Your task to perform on an android device: Add asus zenbook to the cart on costco.com, then select checkout. Image 0: 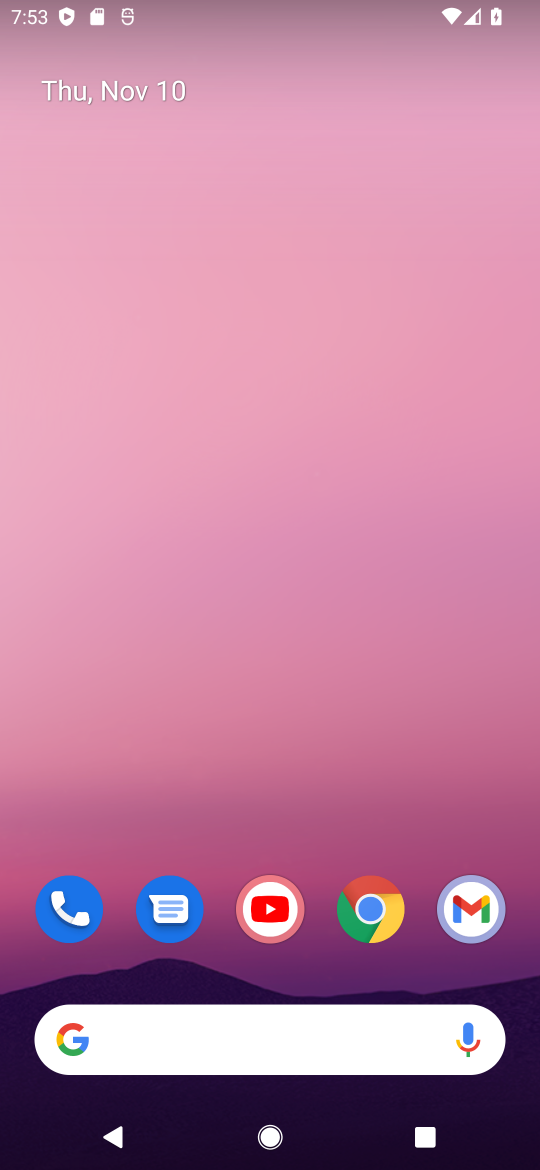
Step 0: drag from (167, 561) to (185, 278)
Your task to perform on an android device: Add asus zenbook to the cart on costco.com, then select checkout. Image 1: 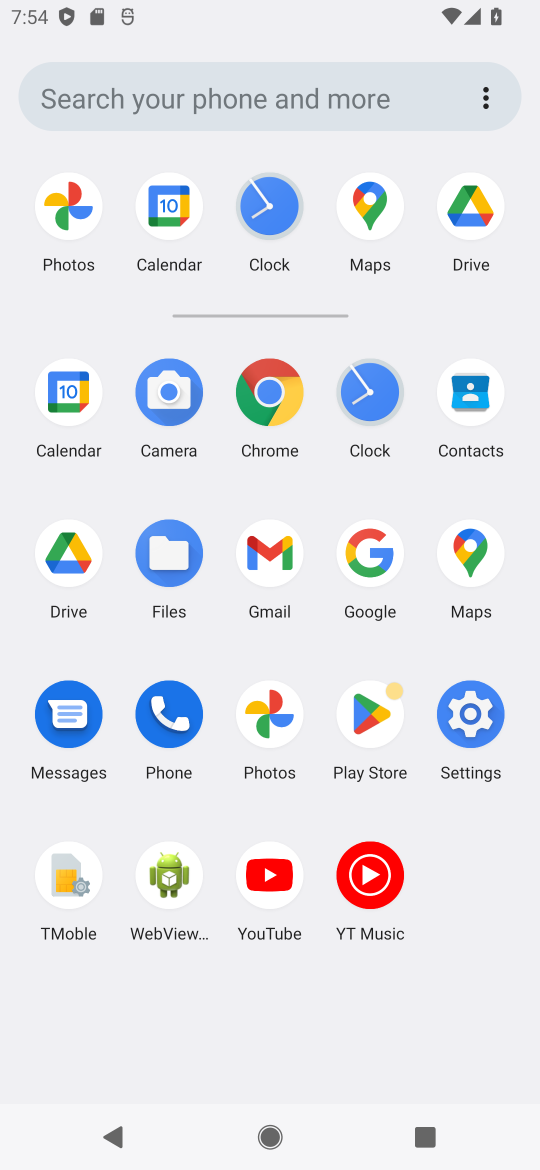
Step 1: click (371, 543)
Your task to perform on an android device: Add asus zenbook to the cart on costco.com, then select checkout. Image 2: 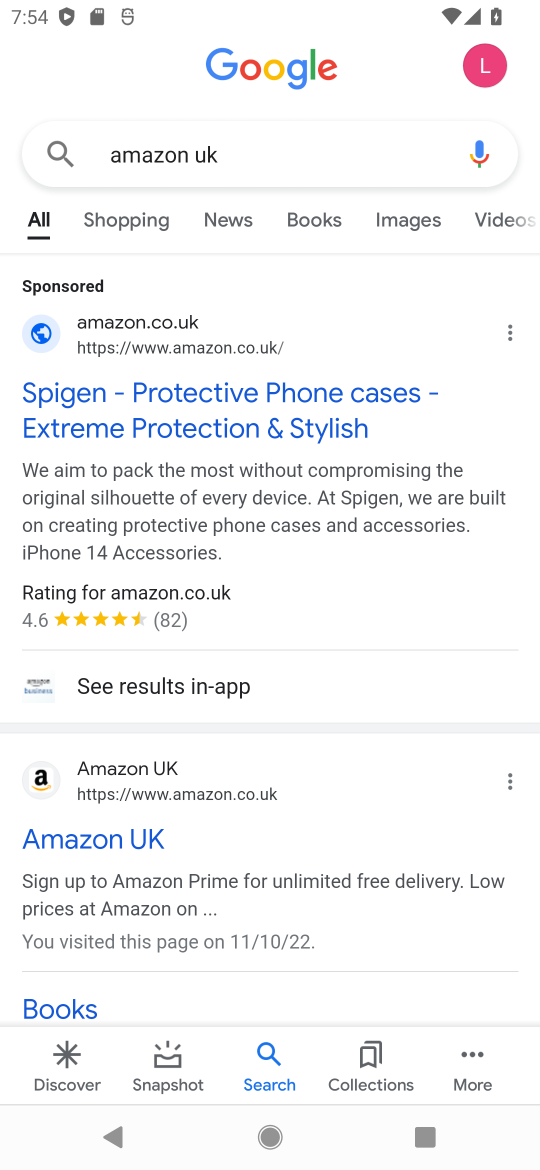
Step 2: click (253, 155)
Your task to perform on an android device: Add asus zenbook to the cart on costco.com, then select checkout. Image 3: 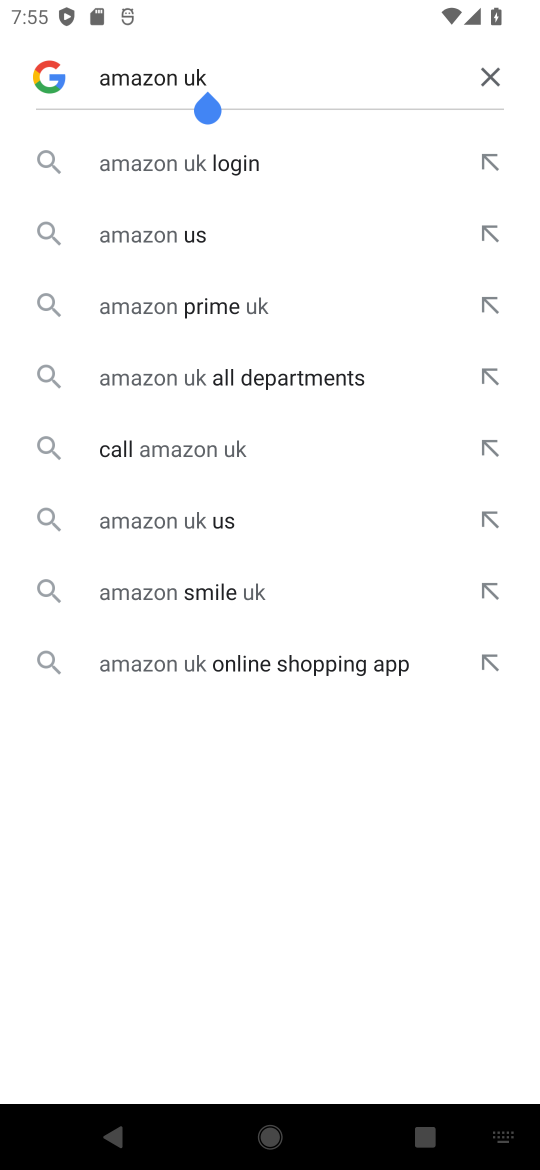
Step 3: click (489, 76)
Your task to perform on an android device: Add asus zenbook to the cart on costco.com, then select checkout. Image 4: 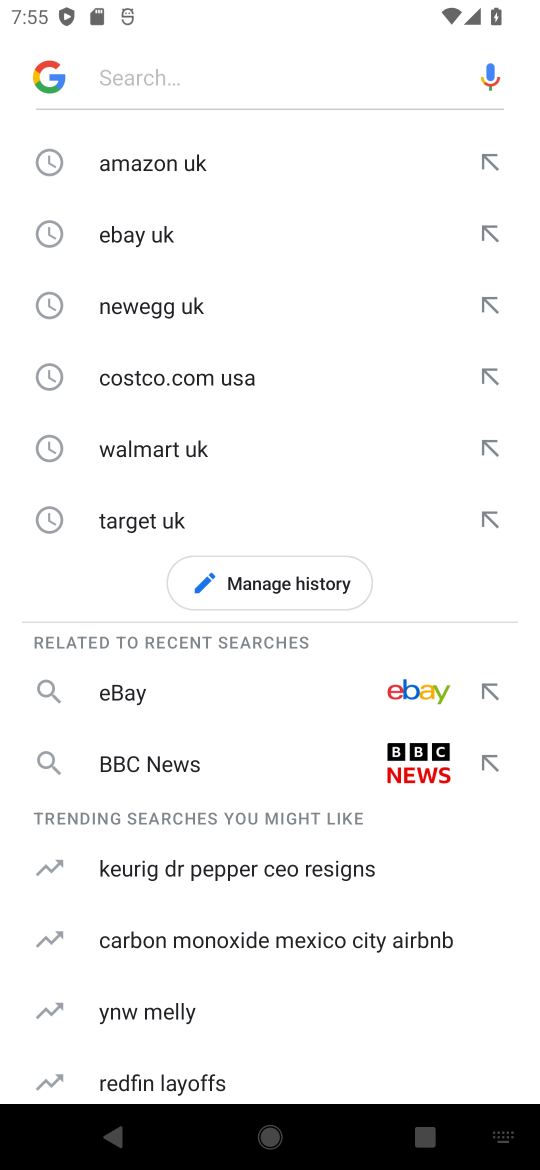
Step 4: click (216, 67)
Your task to perform on an android device: Add asus zenbook to the cart on costco.com, then select checkout. Image 5: 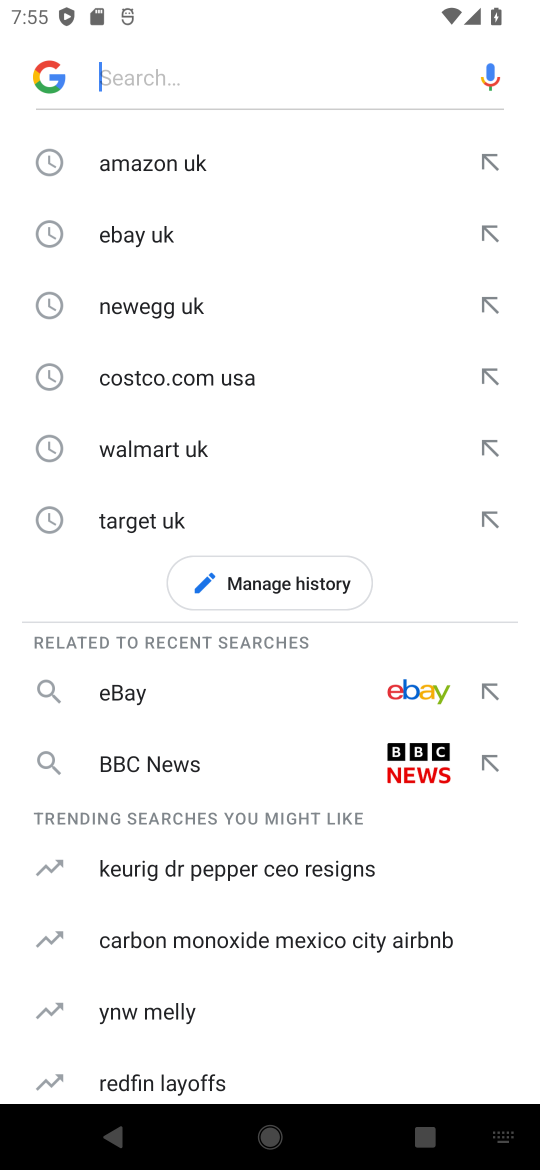
Step 5: type "costco "
Your task to perform on an android device: Add asus zenbook to the cart on costco.com, then select checkout. Image 6: 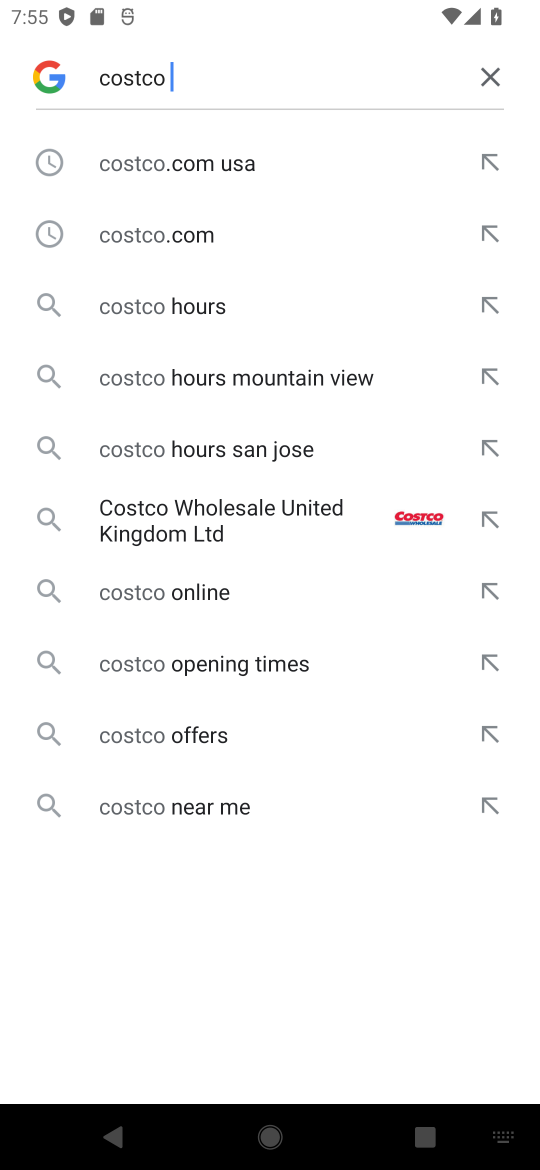
Step 6: click (178, 221)
Your task to perform on an android device: Add asus zenbook to the cart on costco.com, then select checkout. Image 7: 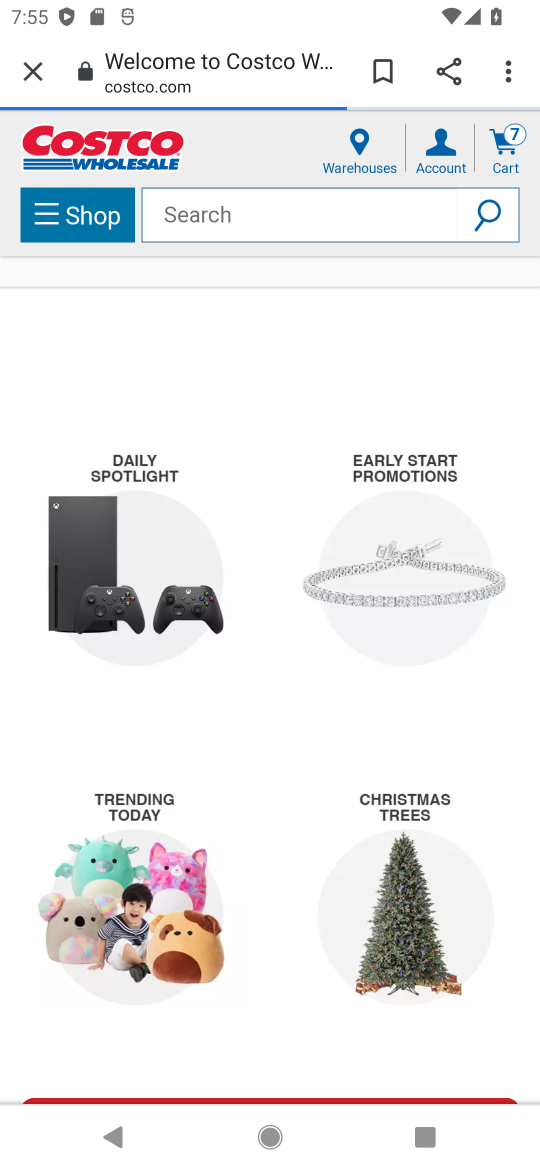
Step 7: click (346, 212)
Your task to perform on an android device: Add asus zenbook to the cart on costco.com, then select checkout. Image 8: 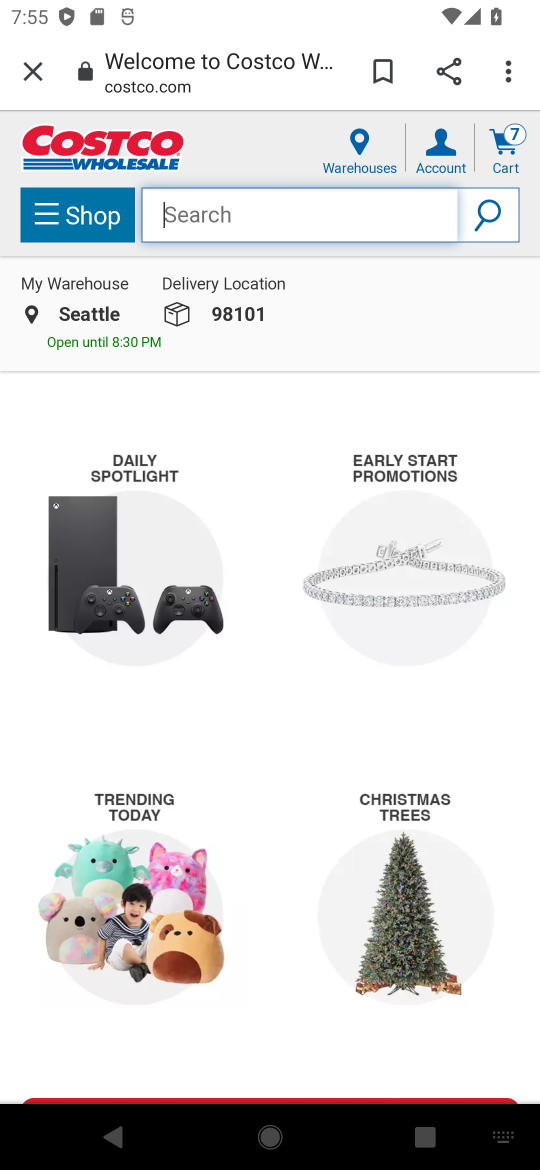
Step 8: click (348, 212)
Your task to perform on an android device: Add asus zenbook to the cart on costco.com, then select checkout. Image 9: 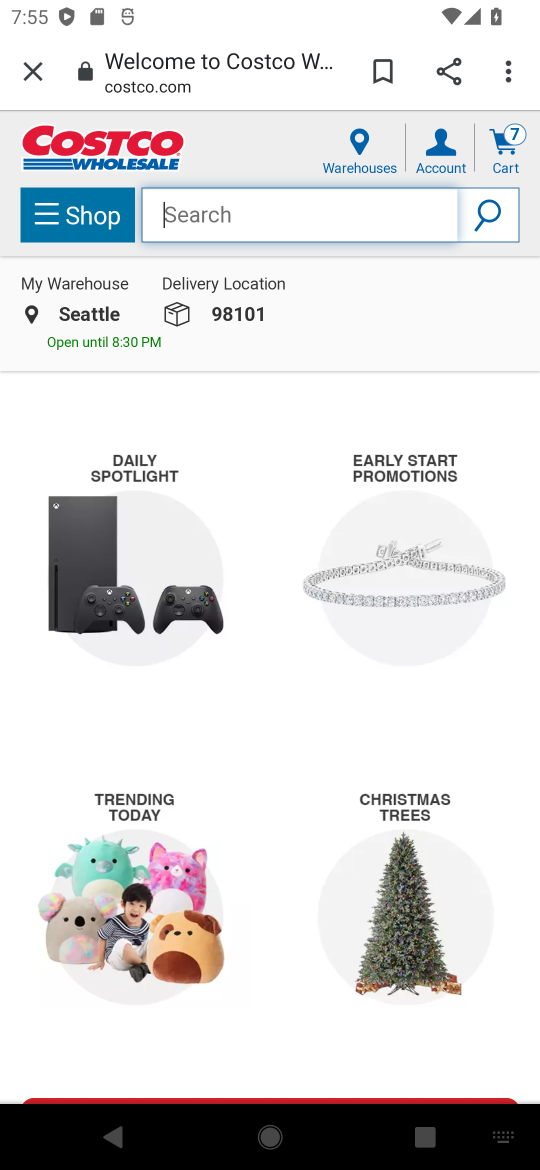
Step 9: type " asus zenbook "
Your task to perform on an android device: Add asus zenbook to the cart on costco.com, then select checkout. Image 10: 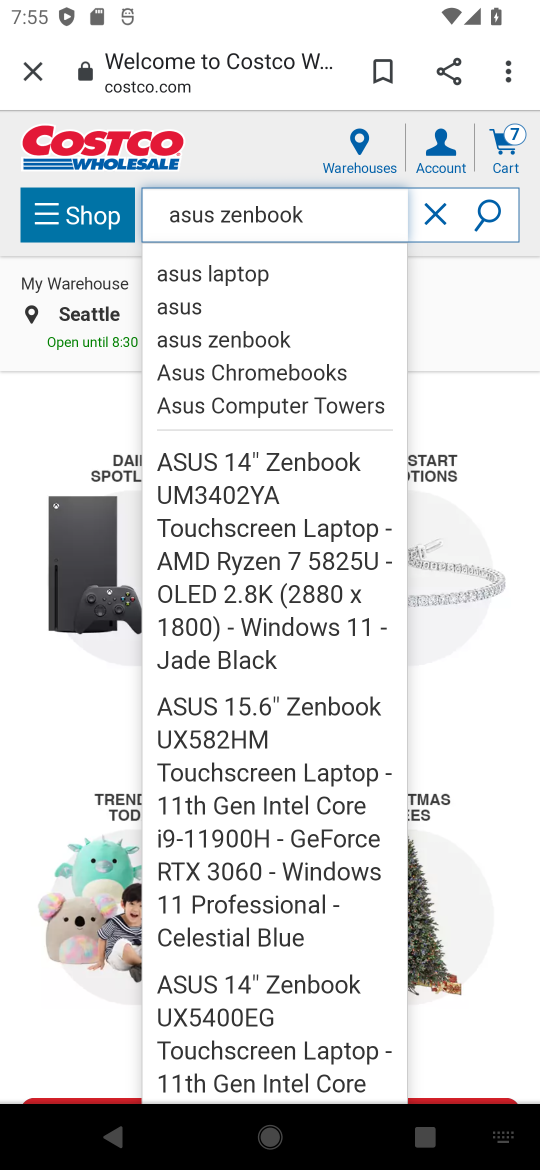
Step 10: click (256, 334)
Your task to perform on an android device: Add asus zenbook to the cart on costco.com, then select checkout. Image 11: 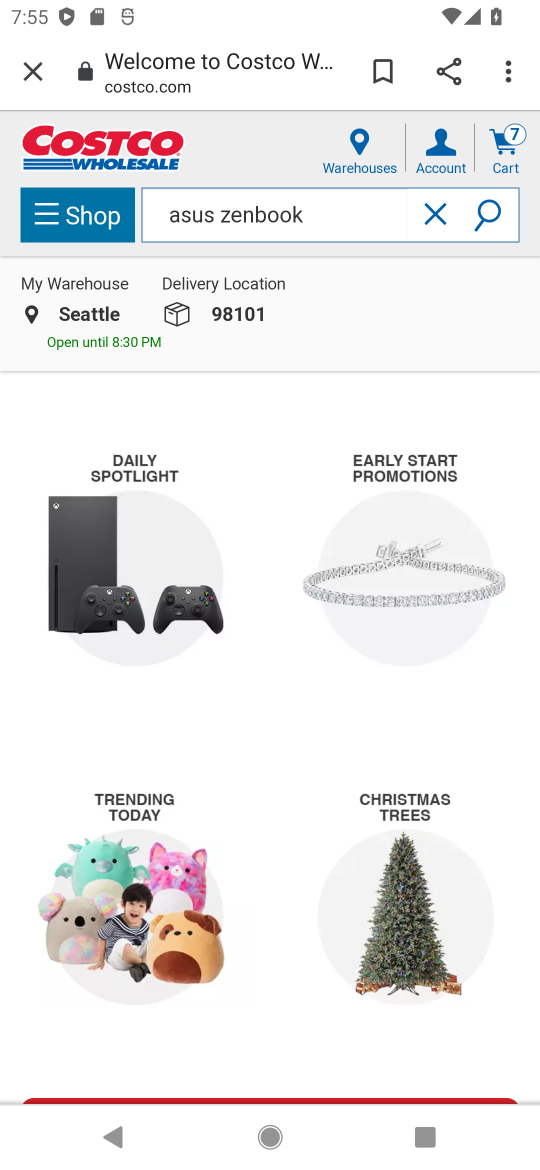
Step 11: click (490, 193)
Your task to perform on an android device: Add asus zenbook to the cart on costco.com, then select checkout. Image 12: 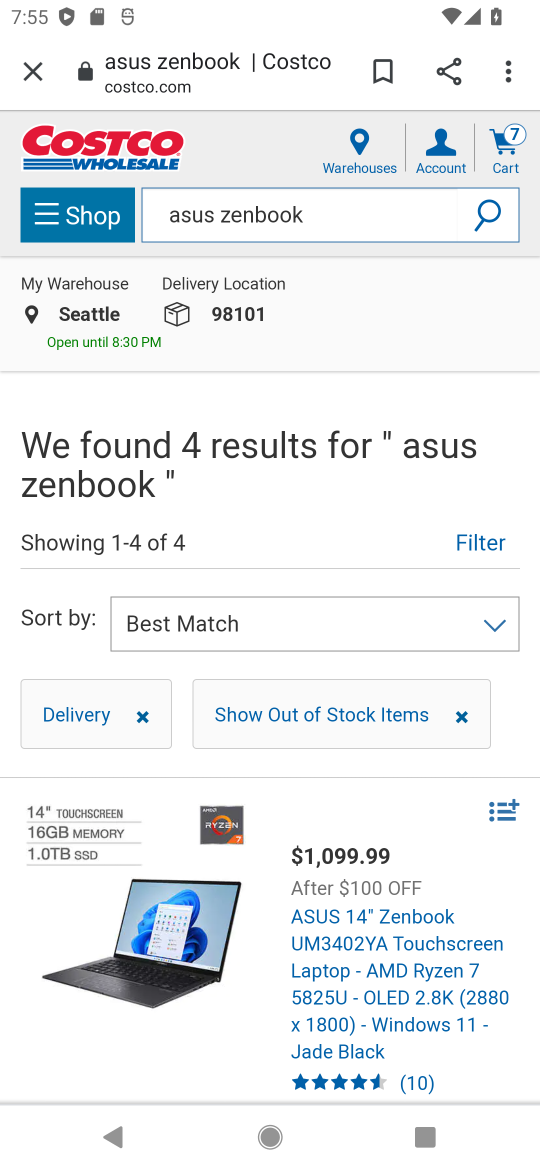
Step 12: drag from (271, 941) to (322, 325)
Your task to perform on an android device: Add asus zenbook to the cart on costco.com, then select checkout. Image 13: 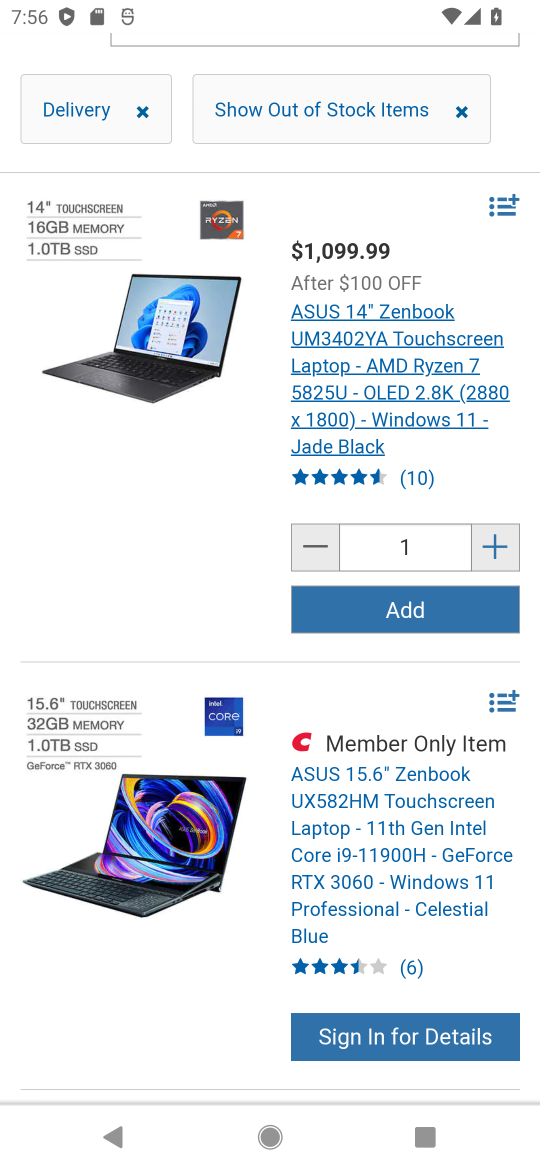
Step 13: click (385, 604)
Your task to perform on an android device: Add asus zenbook to the cart on costco.com, then select checkout. Image 14: 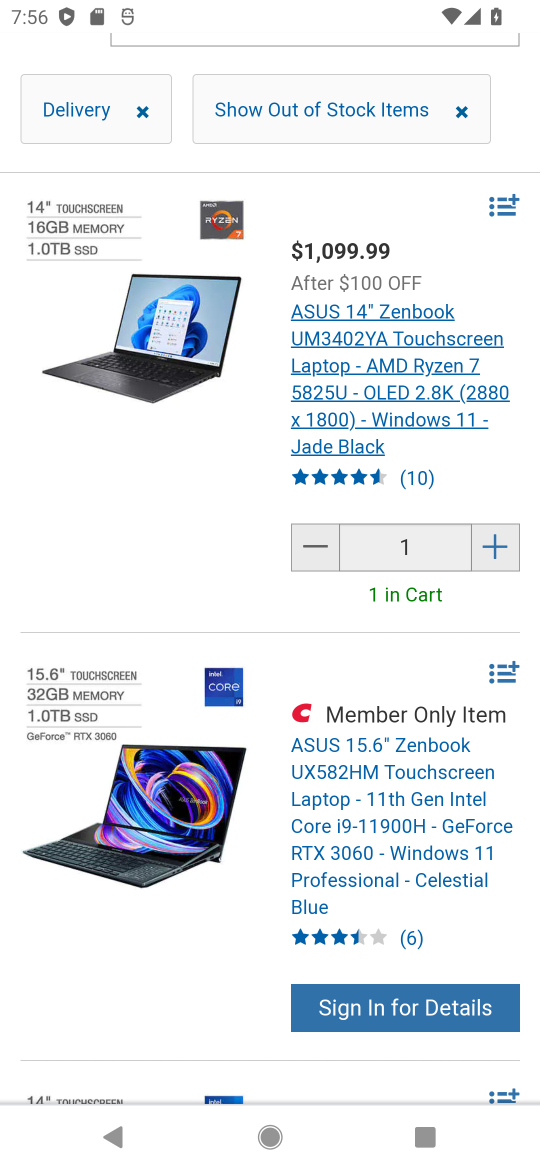
Step 14: task complete